Your task to perform on an android device: change text size in settings app Image 0: 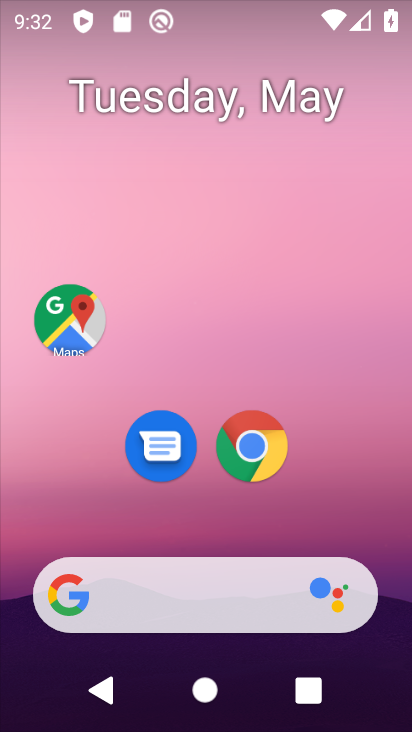
Step 0: drag from (211, 525) to (246, 9)
Your task to perform on an android device: change text size in settings app Image 1: 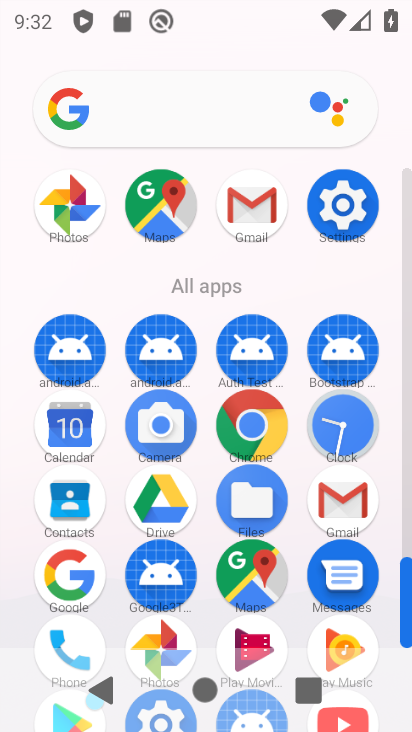
Step 1: click (340, 200)
Your task to perform on an android device: change text size in settings app Image 2: 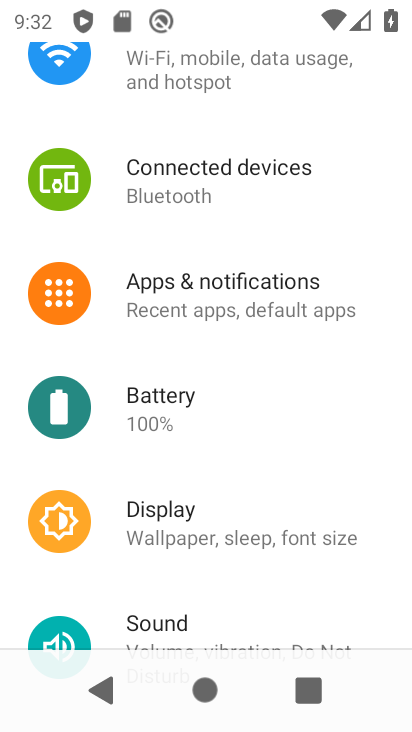
Step 2: click (114, 514)
Your task to perform on an android device: change text size in settings app Image 3: 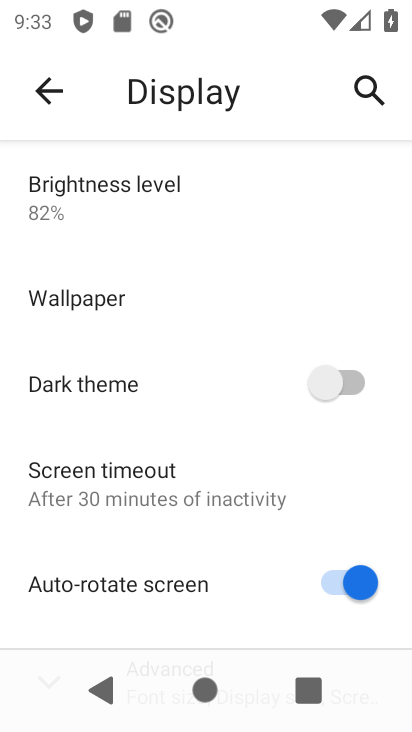
Step 3: drag from (135, 535) to (155, 95)
Your task to perform on an android device: change text size in settings app Image 4: 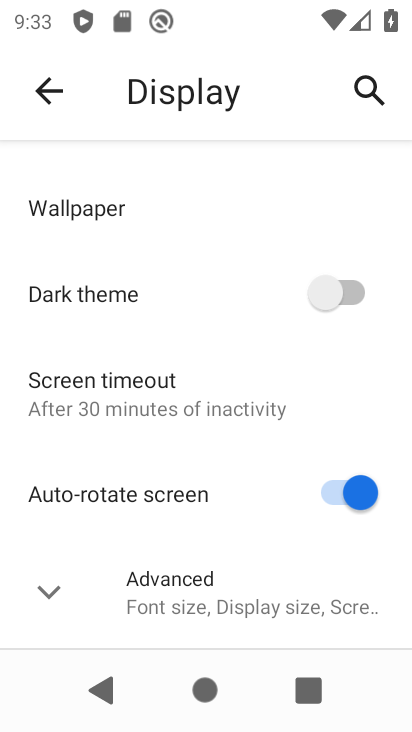
Step 4: click (50, 597)
Your task to perform on an android device: change text size in settings app Image 5: 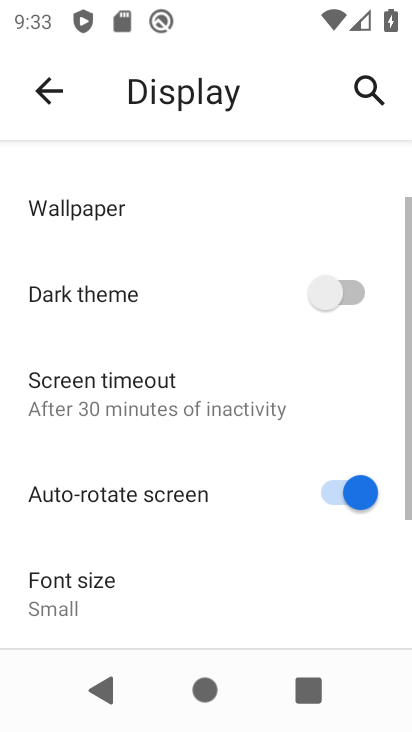
Step 5: click (104, 601)
Your task to perform on an android device: change text size in settings app Image 6: 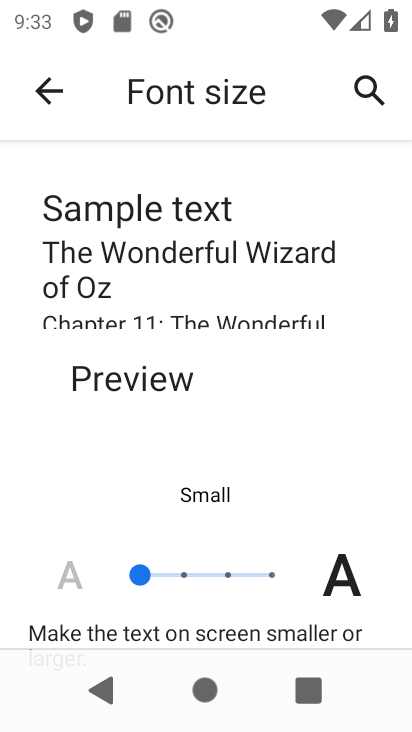
Step 6: click (179, 577)
Your task to perform on an android device: change text size in settings app Image 7: 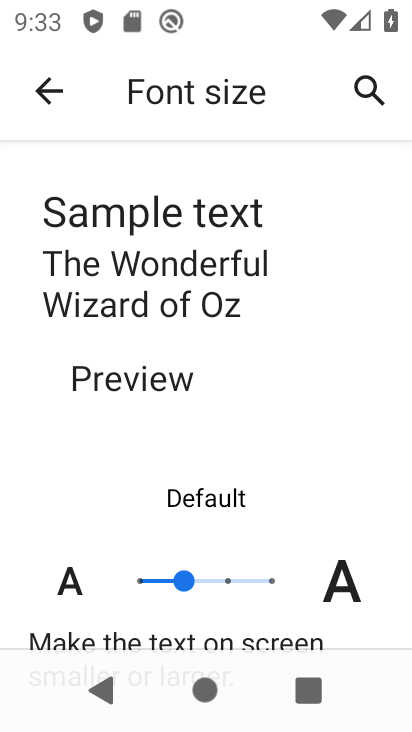
Step 7: task complete